Your task to perform on an android device: find which apps use the phone's location Image 0: 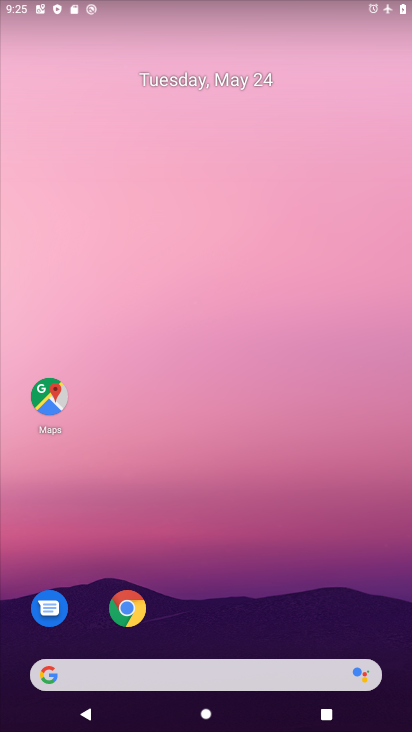
Step 0: drag from (209, 608) to (258, 112)
Your task to perform on an android device: find which apps use the phone's location Image 1: 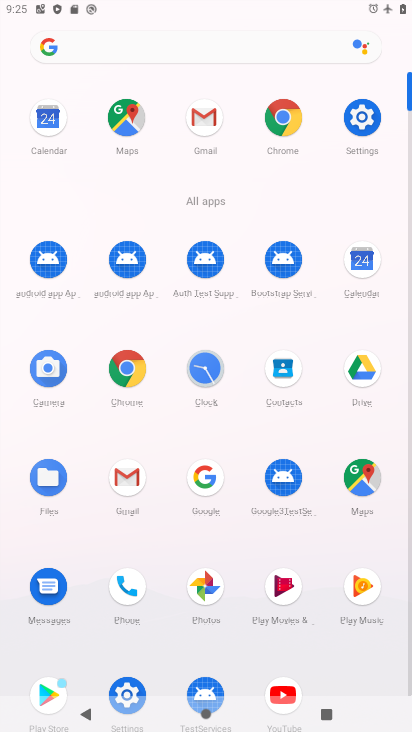
Step 1: click (127, 686)
Your task to perform on an android device: find which apps use the phone's location Image 2: 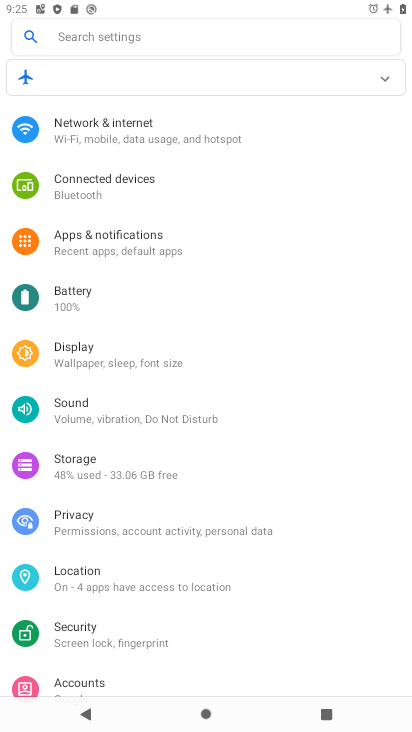
Step 2: click (128, 575)
Your task to perform on an android device: find which apps use the phone's location Image 3: 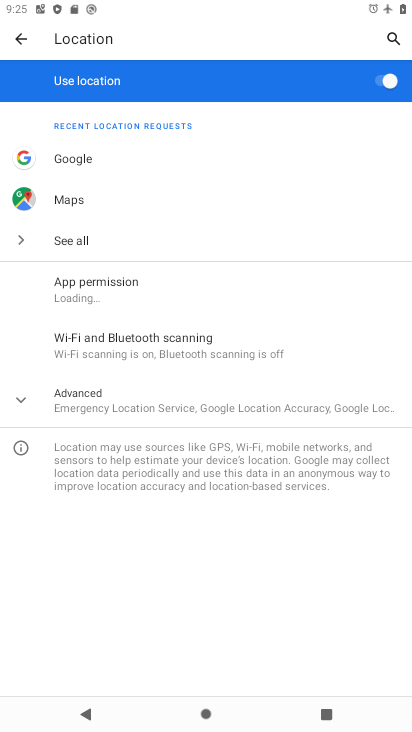
Step 3: click (141, 285)
Your task to perform on an android device: find which apps use the phone's location Image 4: 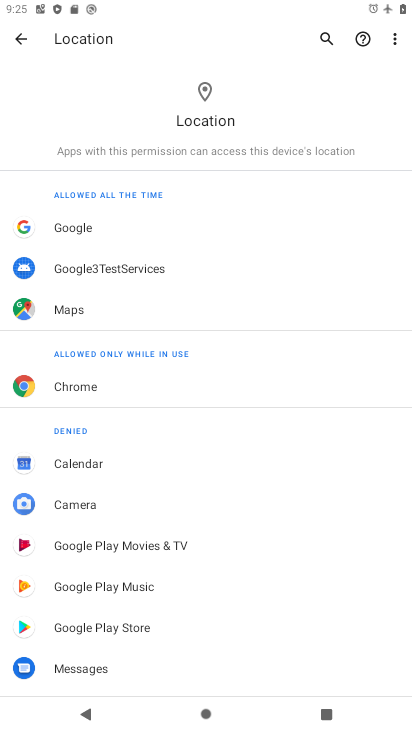
Step 4: task complete